Your task to perform on an android device: change the upload size in google photos Image 0: 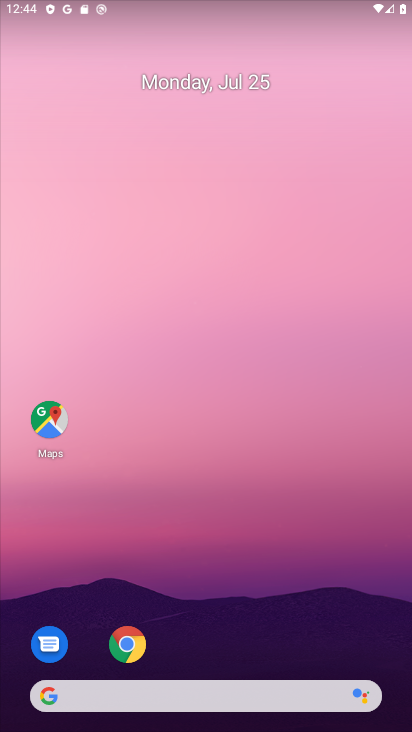
Step 0: drag from (268, 618) to (254, 89)
Your task to perform on an android device: change the upload size in google photos Image 1: 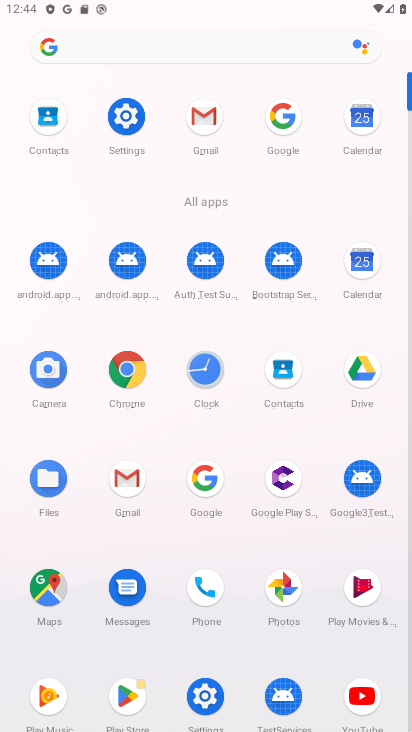
Step 1: click (284, 585)
Your task to perform on an android device: change the upload size in google photos Image 2: 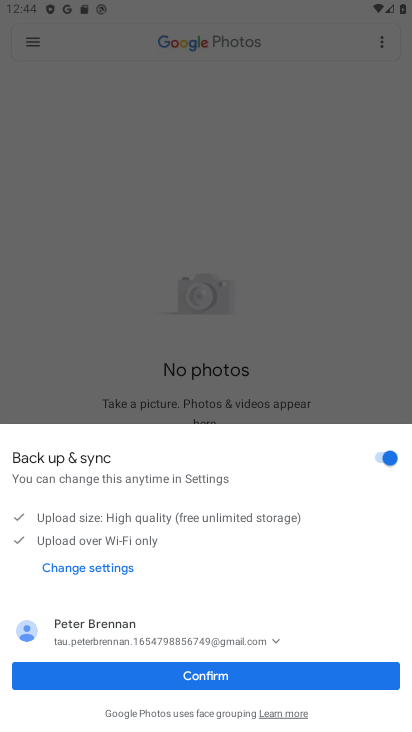
Step 2: click (190, 676)
Your task to perform on an android device: change the upload size in google photos Image 3: 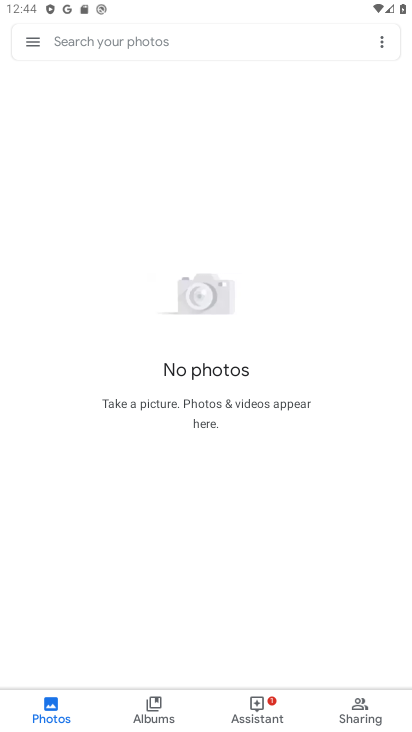
Step 3: click (36, 38)
Your task to perform on an android device: change the upload size in google photos Image 4: 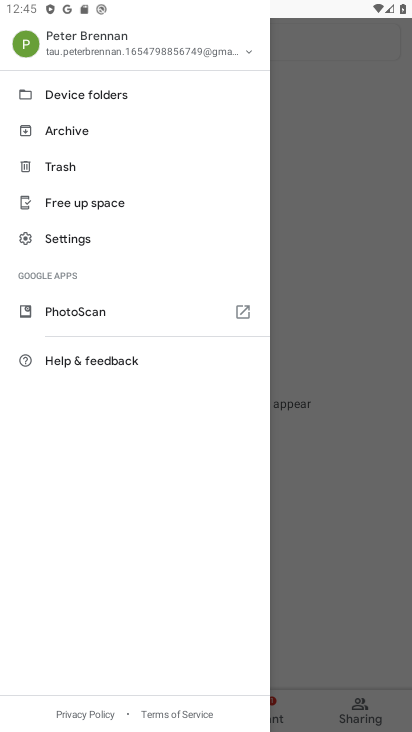
Step 4: click (77, 235)
Your task to perform on an android device: change the upload size in google photos Image 5: 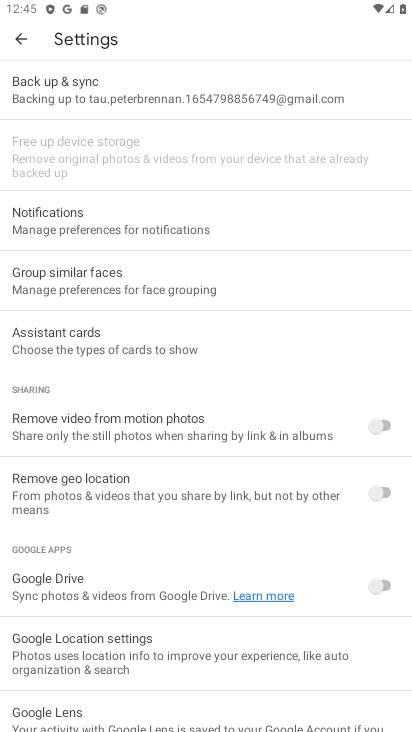
Step 5: click (127, 95)
Your task to perform on an android device: change the upload size in google photos Image 6: 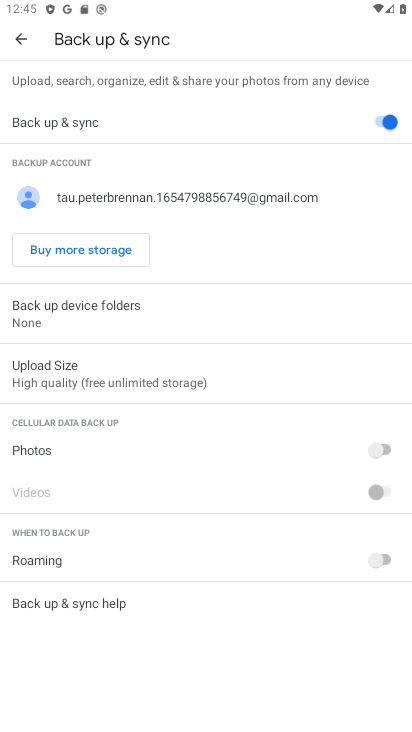
Step 6: click (77, 360)
Your task to perform on an android device: change the upload size in google photos Image 7: 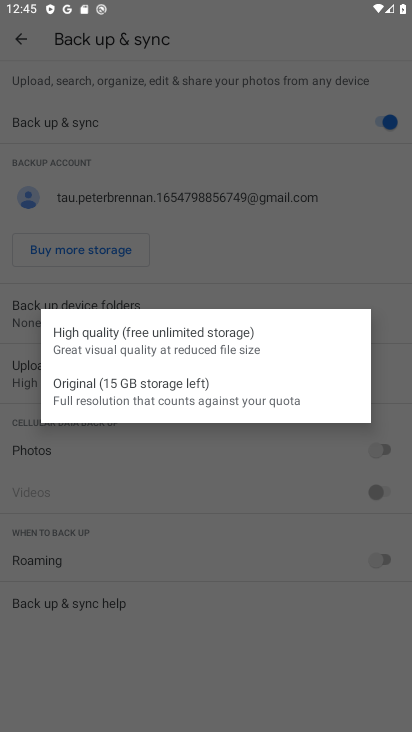
Step 7: click (103, 388)
Your task to perform on an android device: change the upload size in google photos Image 8: 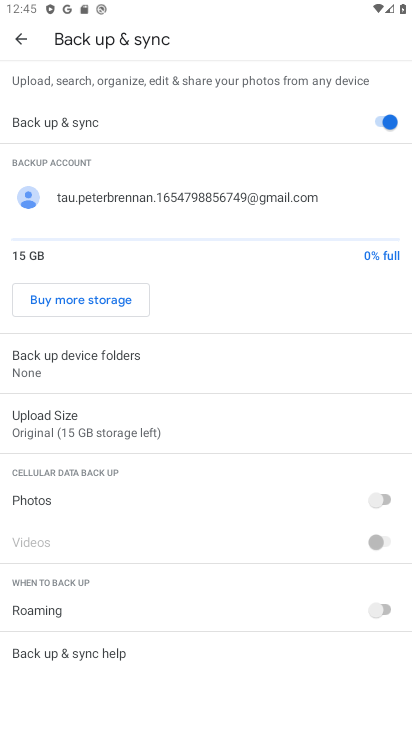
Step 8: task complete